Your task to perform on an android device: check the backup settings in the google photos Image 0: 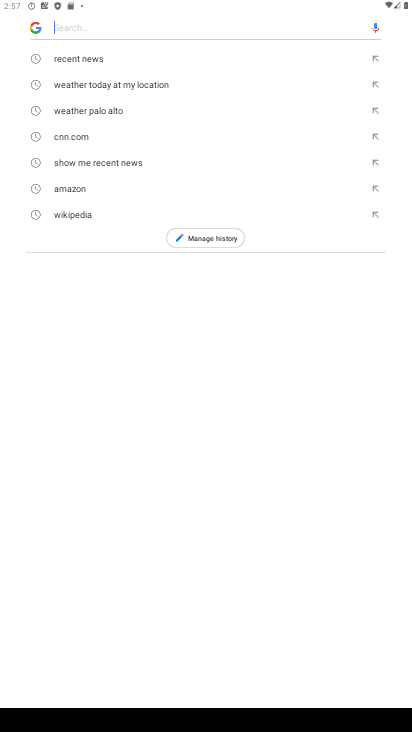
Step 0: press home button
Your task to perform on an android device: check the backup settings in the google photos Image 1: 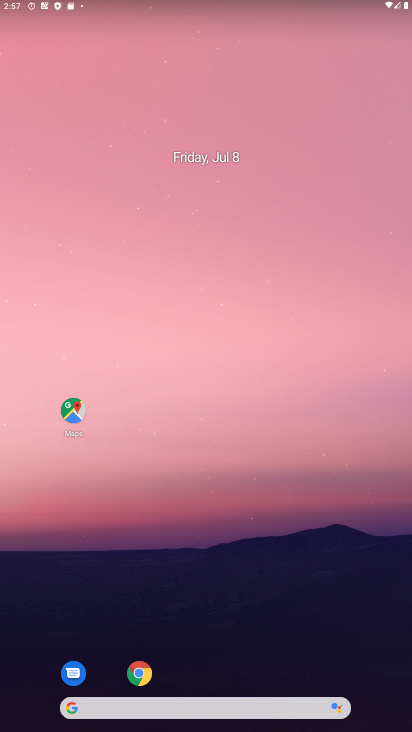
Step 1: drag from (161, 690) to (154, 381)
Your task to perform on an android device: check the backup settings in the google photos Image 2: 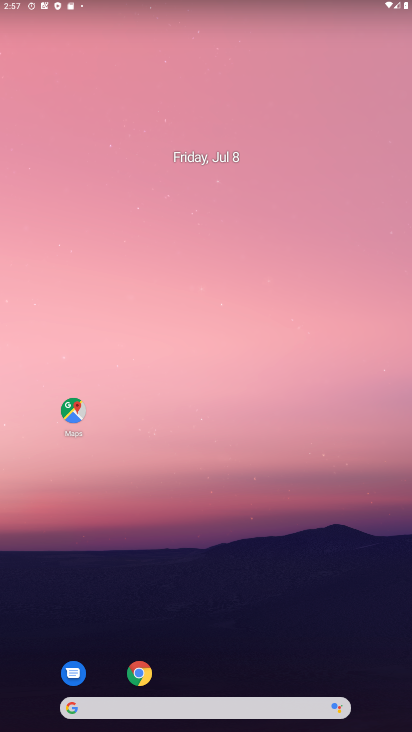
Step 2: drag from (170, 685) to (107, 324)
Your task to perform on an android device: check the backup settings in the google photos Image 3: 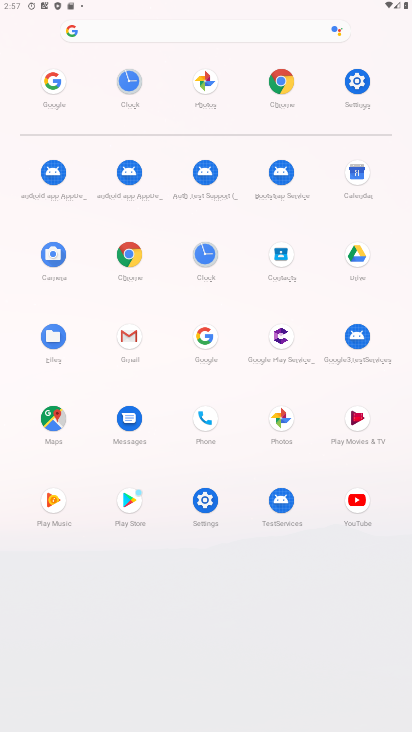
Step 3: click (206, 90)
Your task to perform on an android device: check the backup settings in the google photos Image 4: 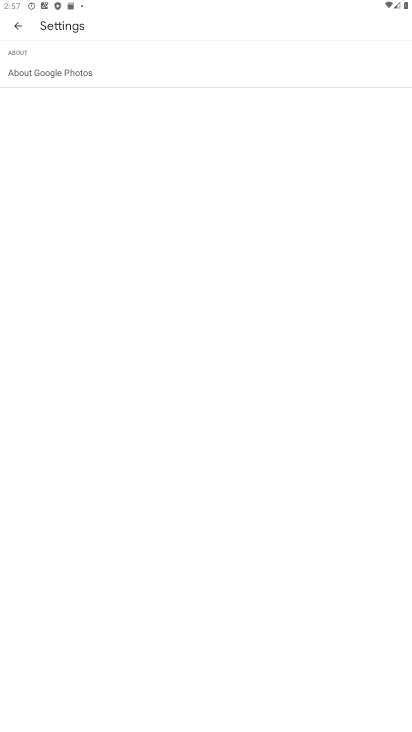
Step 4: click (17, 21)
Your task to perform on an android device: check the backup settings in the google photos Image 5: 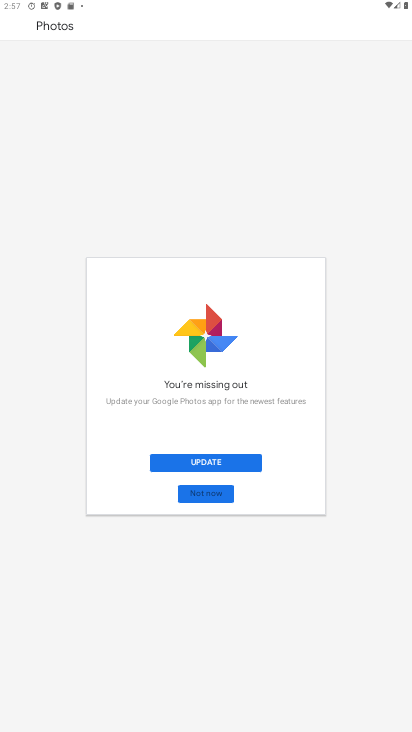
Step 5: click (193, 466)
Your task to perform on an android device: check the backup settings in the google photos Image 6: 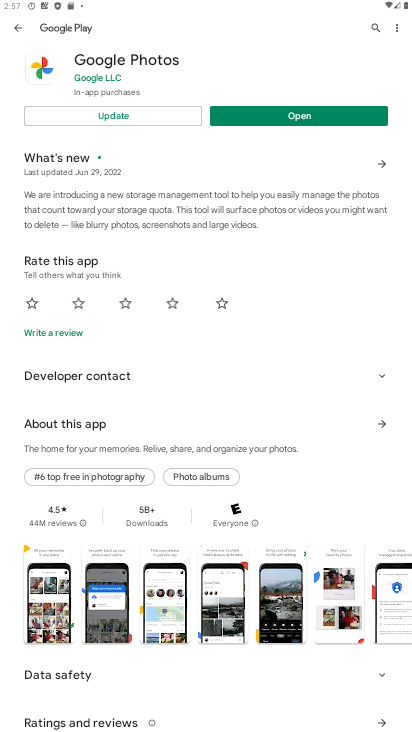
Step 6: click (108, 116)
Your task to perform on an android device: check the backup settings in the google photos Image 7: 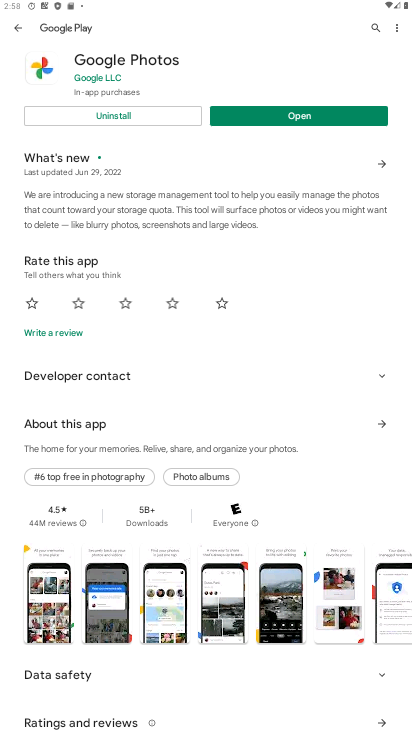
Step 7: click (273, 126)
Your task to perform on an android device: check the backup settings in the google photos Image 8: 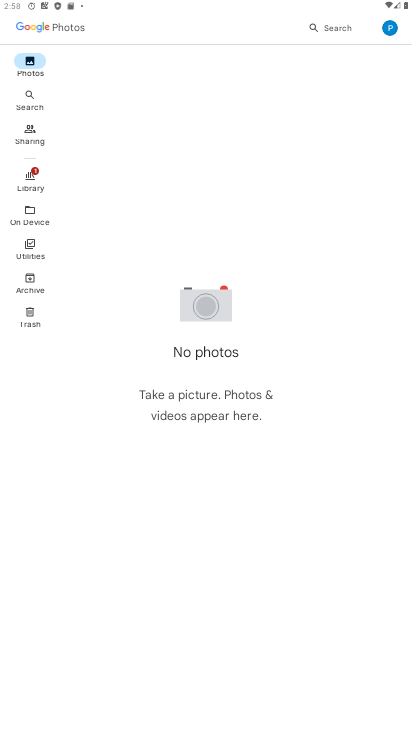
Step 8: click (383, 24)
Your task to perform on an android device: check the backup settings in the google photos Image 9: 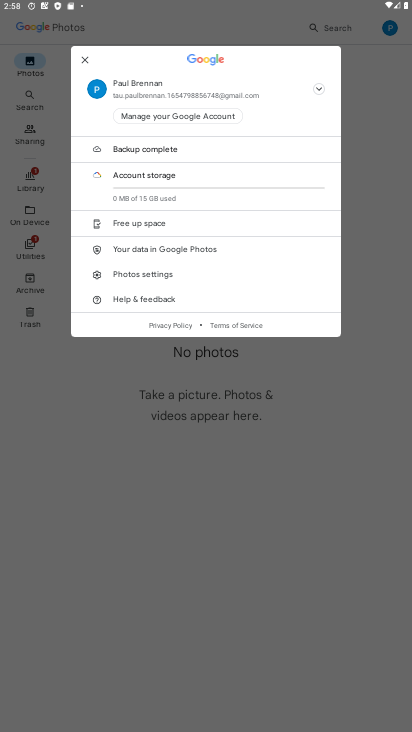
Step 9: click (131, 273)
Your task to perform on an android device: check the backup settings in the google photos Image 10: 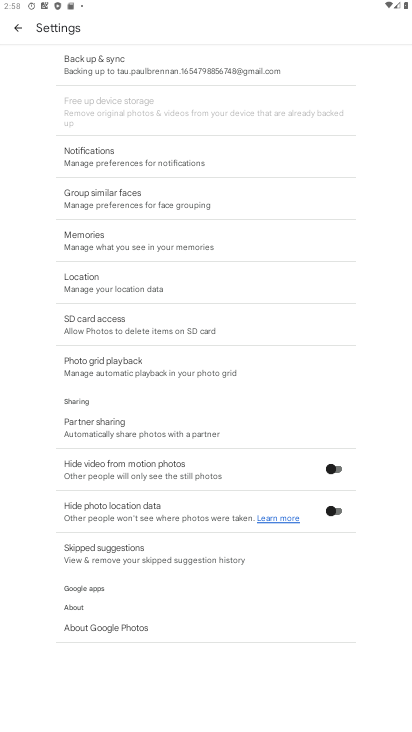
Step 10: click (122, 70)
Your task to perform on an android device: check the backup settings in the google photos Image 11: 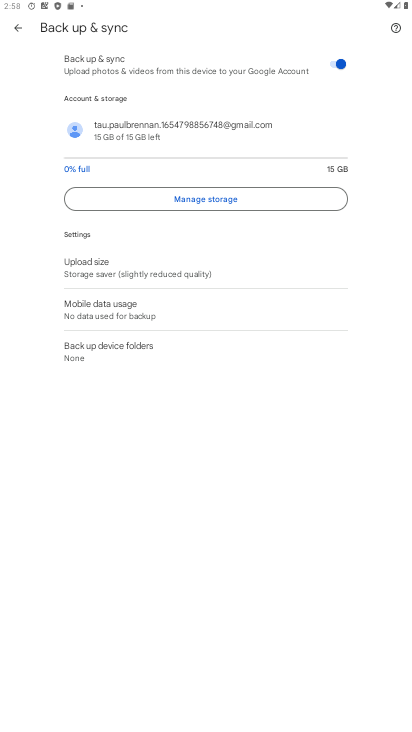
Step 11: task complete